Your task to perform on an android device: Open the calendar app, open the side menu, and click the "Day" option Image 0: 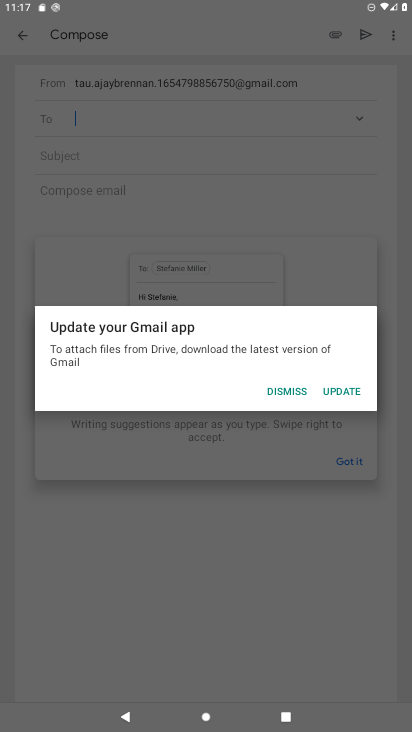
Step 0: press home button
Your task to perform on an android device: Open the calendar app, open the side menu, and click the "Day" option Image 1: 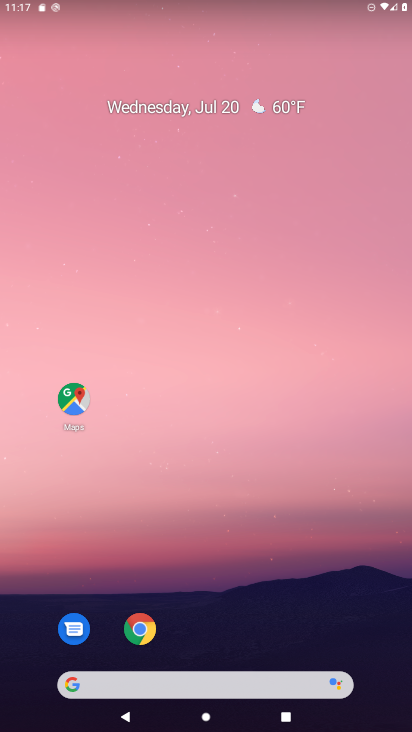
Step 1: drag from (205, 624) to (205, 171)
Your task to perform on an android device: Open the calendar app, open the side menu, and click the "Day" option Image 2: 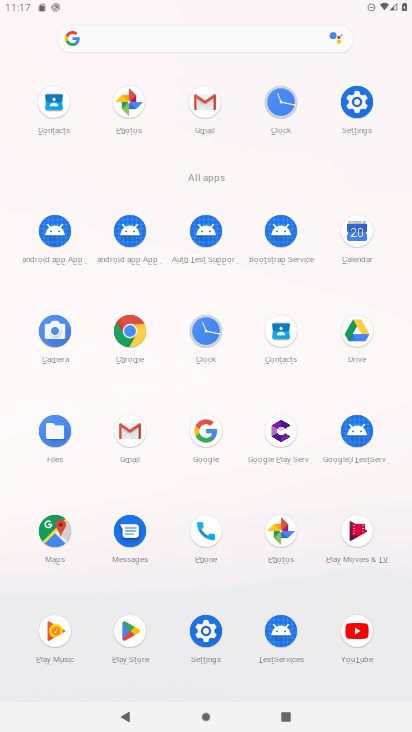
Step 2: click (349, 241)
Your task to perform on an android device: Open the calendar app, open the side menu, and click the "Day" option Image 3: 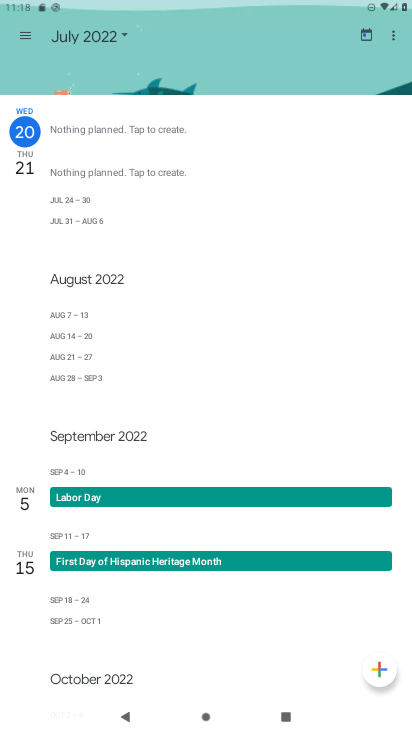
Step 3: click (33, 42)
Your task to perform on an android device: Open the calendar app, open the side menu, and click the "Day" option Image 4: 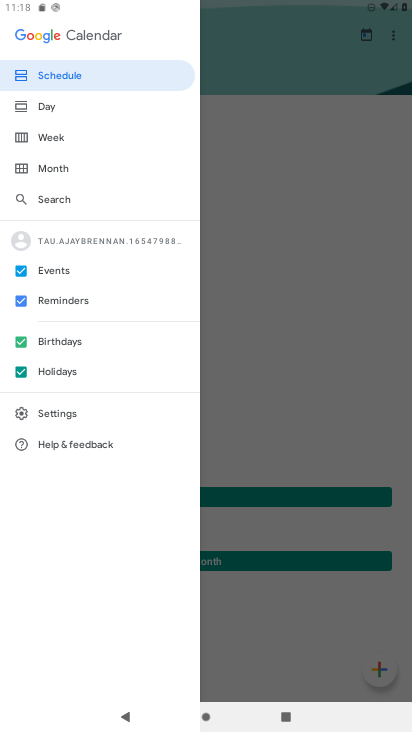
Step 4: click (101, 109)
Your task to perform on an android device: Open the calendar app, open the side menu, and click the "Day" option Image 5: 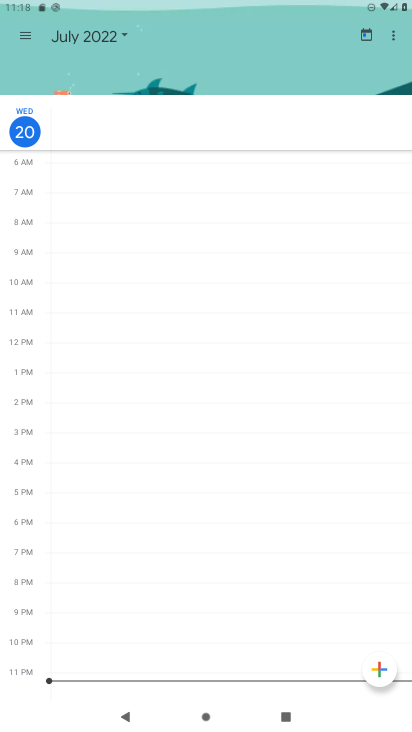
Step 5: task complete